Your task to perform on an android device: turn off airplane mode Image 0: 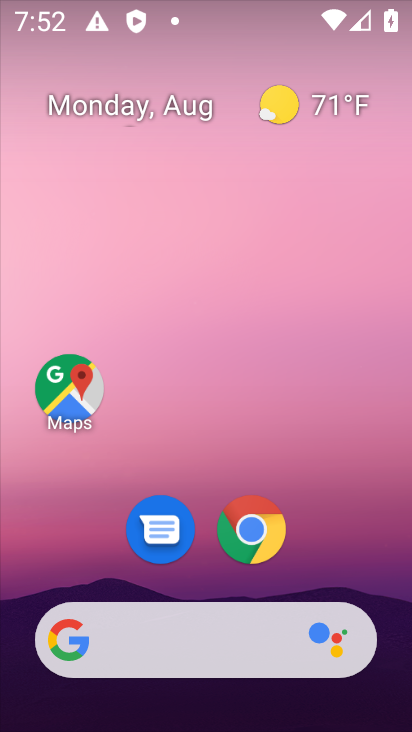
Step 0: drag from (251, 624) to (239, 57)
Your task to perform on an android device: turn off airplane mode Image 1: 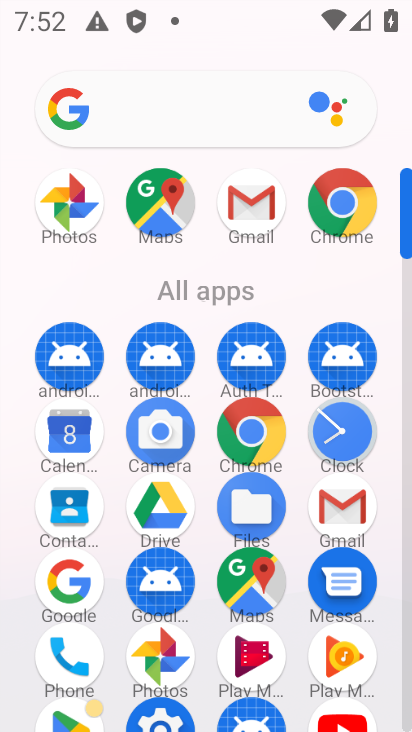
Step 1: drag from (216, 546) to (220, 197)
Your task to perform on an android device: turn off airplane mode Image 2: 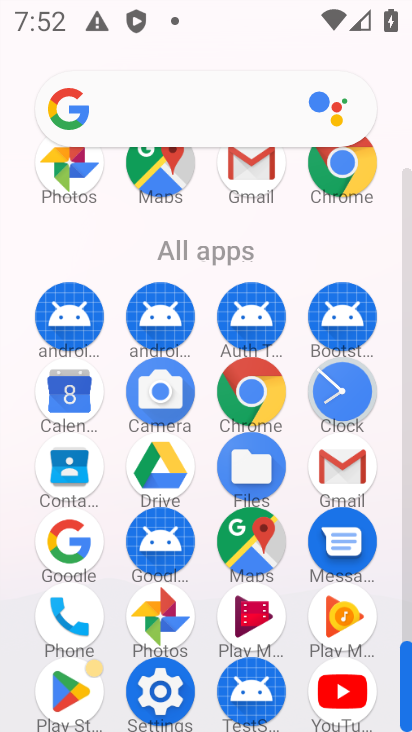
Step 2: click (157, 692)
Your task to perform on an android device: turn off airplane mode Image 3: 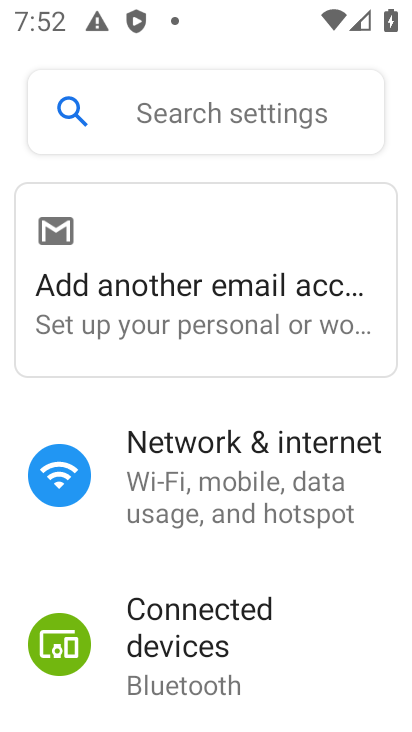
Step 3: click (284, 500)
Your task to perform on an android device: turn off airplane mode Image 4: 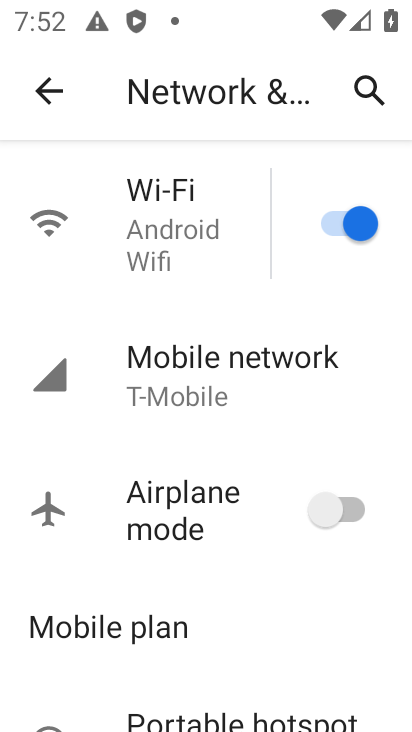
Step 4: task complete